Your task to perform on an android device: turn on the 24-hour format for clock Image 0: 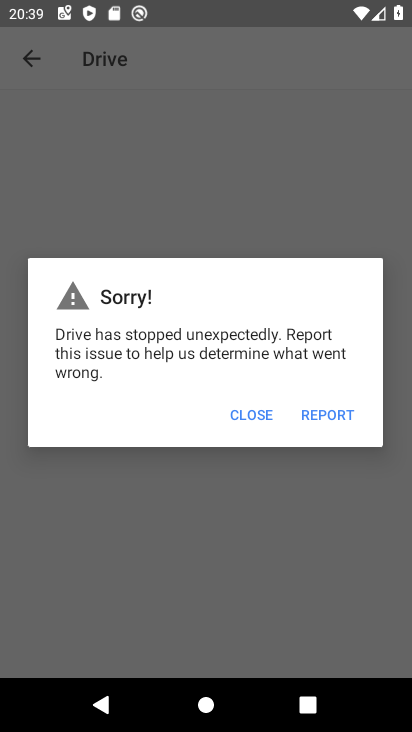
Step 0: press home button
Your task to perform on an android device: turn on the 24-hour format for clock Image 1: 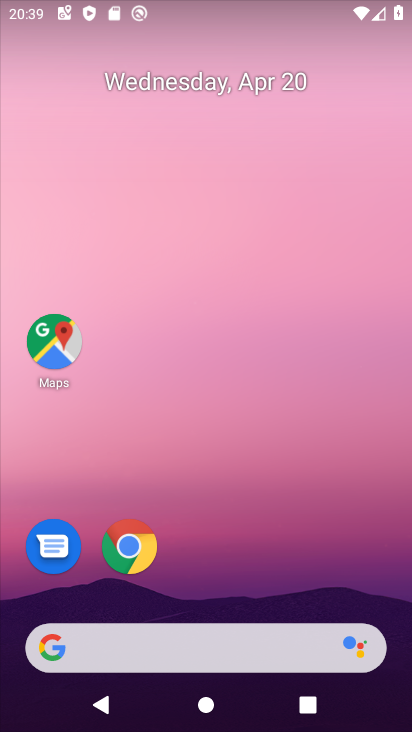
Step 1: drag from (293, 509) to (223, 42)
Your task to perform on an android device: turn on the 24-hour format for clock Image 2: 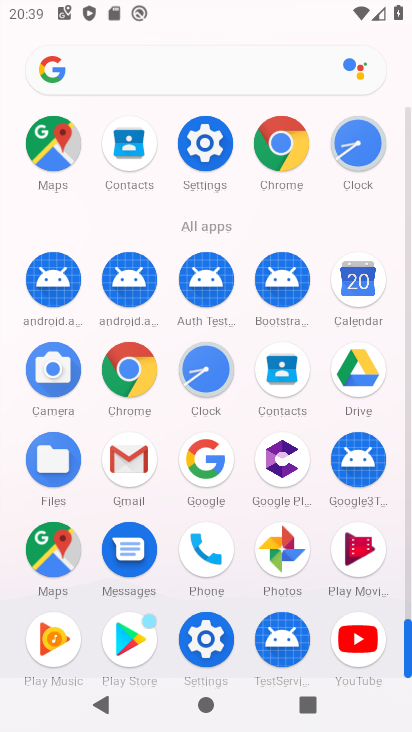
Step 2: click (362, 149)
Your task to perform on an android device: turn on the 24-hour format for clock Image 3: 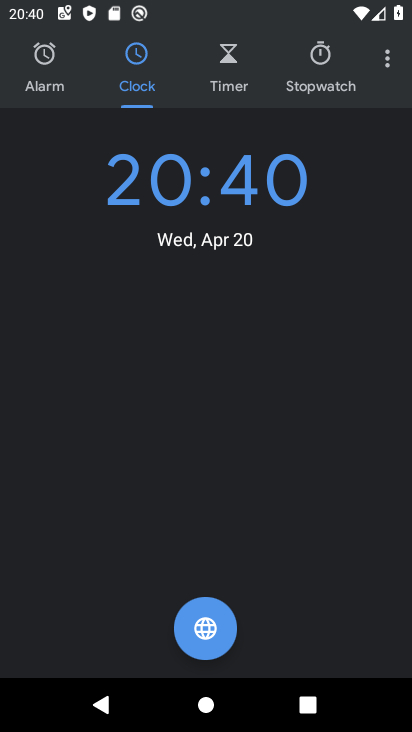
Step 3: click (385, 67)
Your task to perform on an android device: turn on the 24-hour format for clock Image 4: 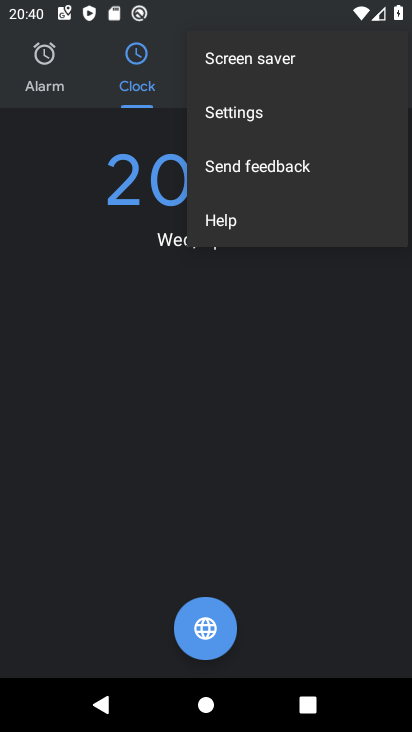
Step 4: click (261, 131)
Your task to perform on an android device: turn on the 24-hour format for clock Image 5: 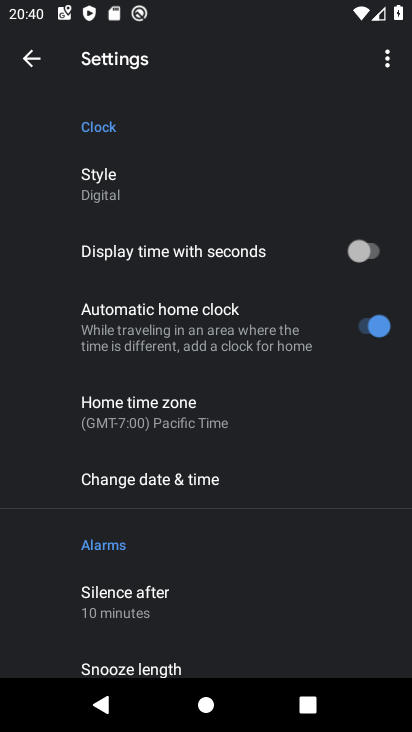
Step 5: click (197, 483)
Your task to perform on an android device: turn on the 24-hour format for clock Image 6: 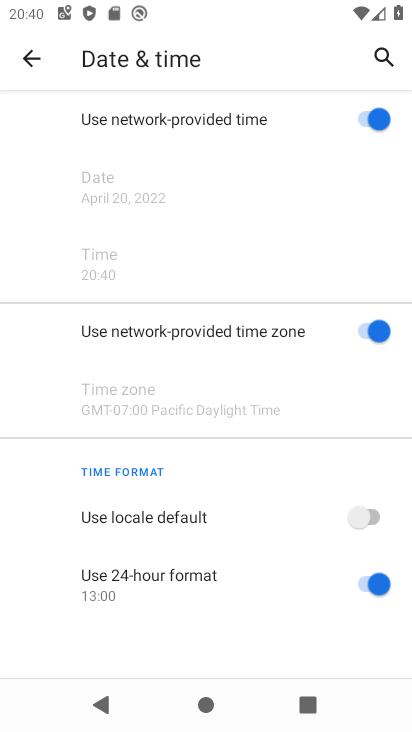
Step 6: task complete